Your task to perform on an android device: Open Chrome and go to settings Image 0: 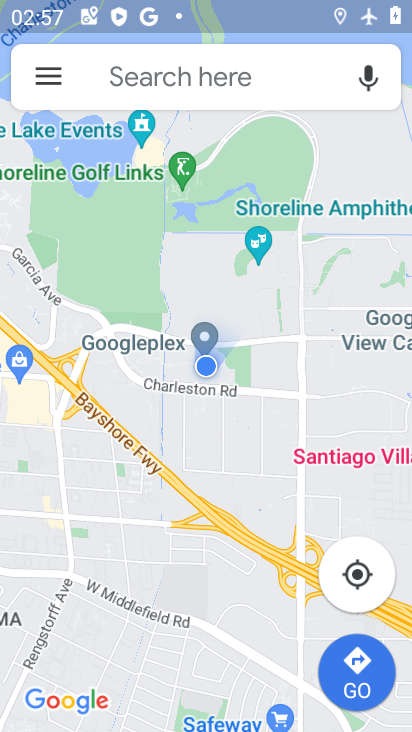
Step 0: press home button
Your task to perform on an android device: Open Chrome and go to settings Image 1: 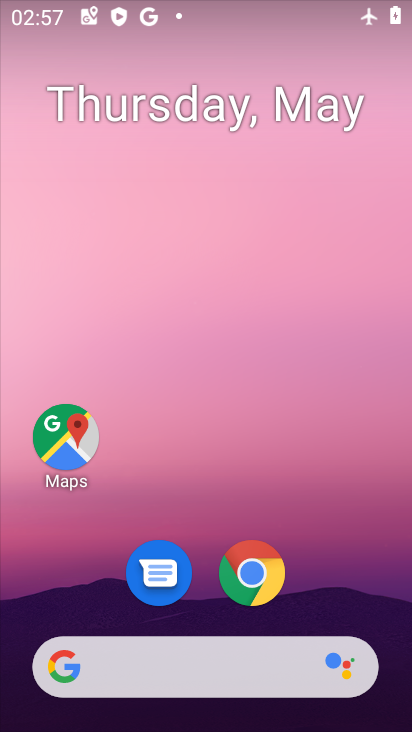
Step 1: click (250, 578)
Your task to perform on an android device: Open Chrome and go to settings Image 2: 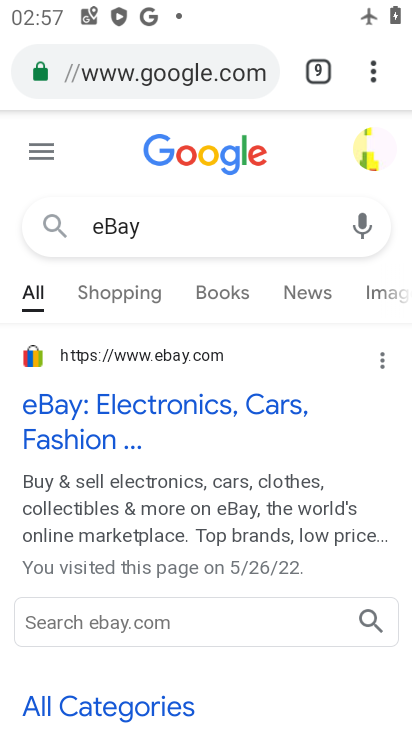
Step 2: click (365, 61)
Your task to perform on an android device: Open Chrome and go to settings Image 3: 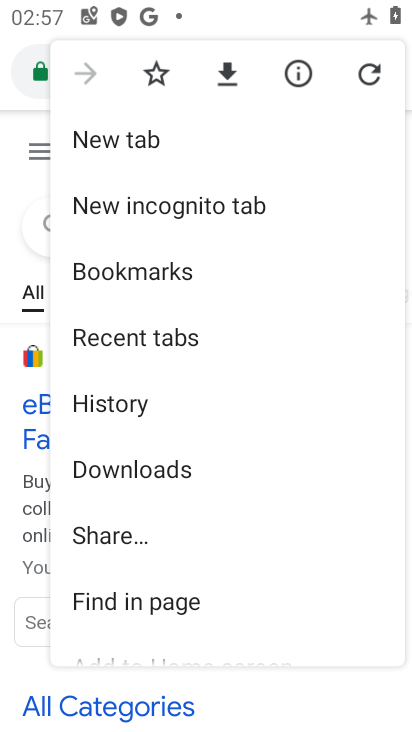
Step 3: drag from (175, 577) to (217, 317)
Your task to perform on an android device: Open Chrome and go to settings Image 4: 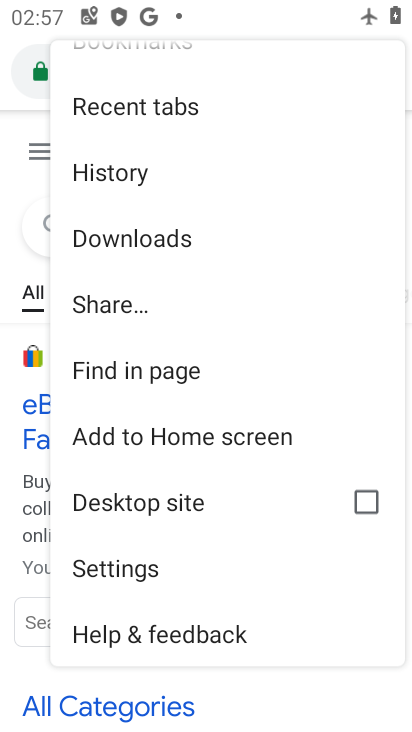
Step 4: click (147, 567)
Your task to perform on an android device: Open Chrome and go to settings Image 5: 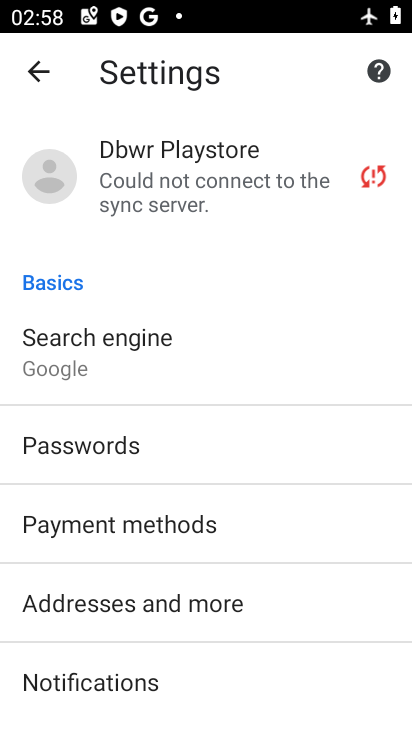
Step 5: task complete